Your task to perform on an android device: Open display settings Image 0: 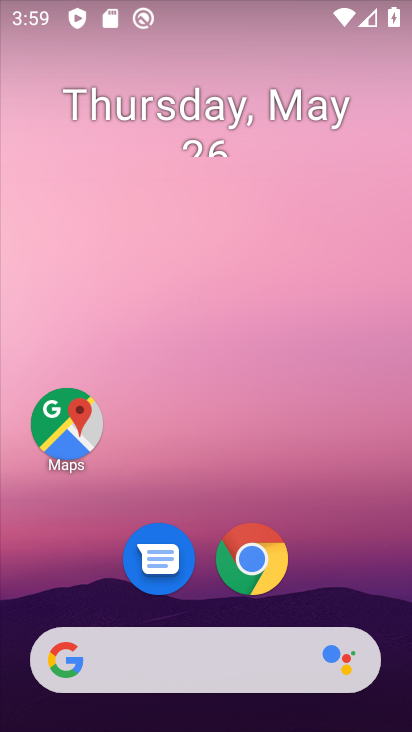
Step 0: drag from (331, 455) to (210, 49)
Your task to perform on an android device: Open display settings Image 1: 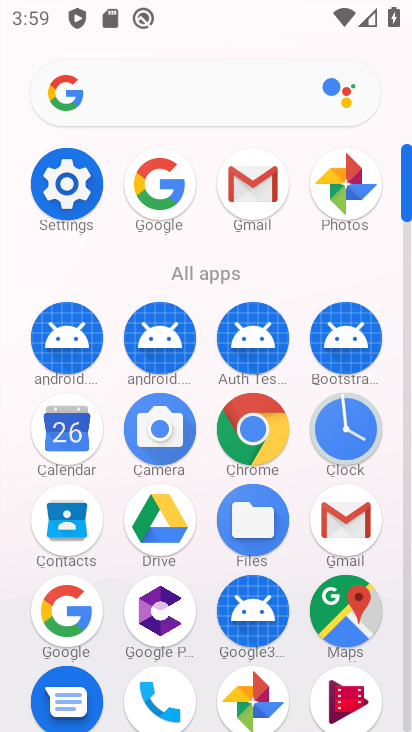
Step 1: click (71, 184)
Your task to perform on an android device: Open display settings Image 2: 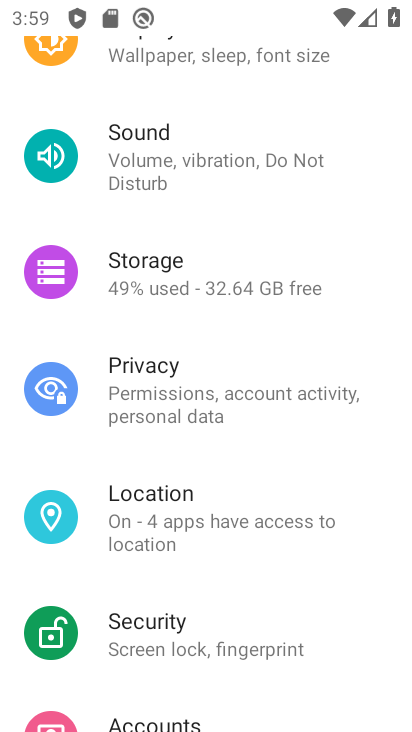
Step 2: drag from (219, 101) to (173, 526)
Your task to perform on an android device: Open display settings Image 3: 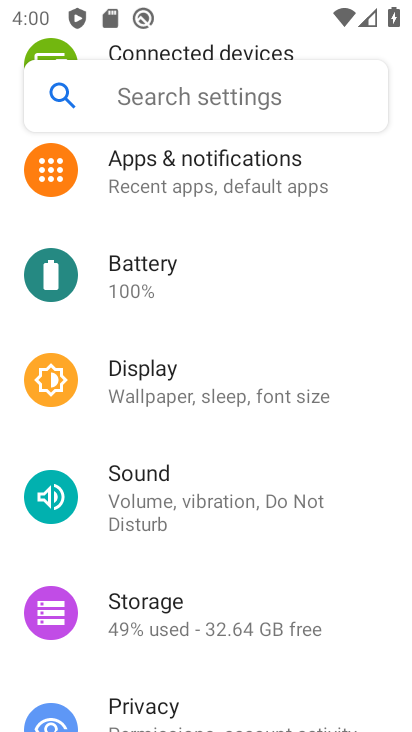
Step 3: click (177, 383)
Your task to perform on an android device: Open display settings Image 4: 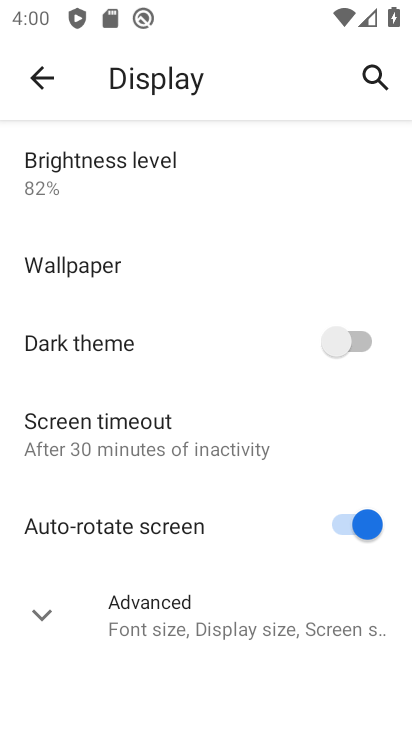
Step 4: task complete